Your task to perform on an android device: Go to Google maps Image 0: 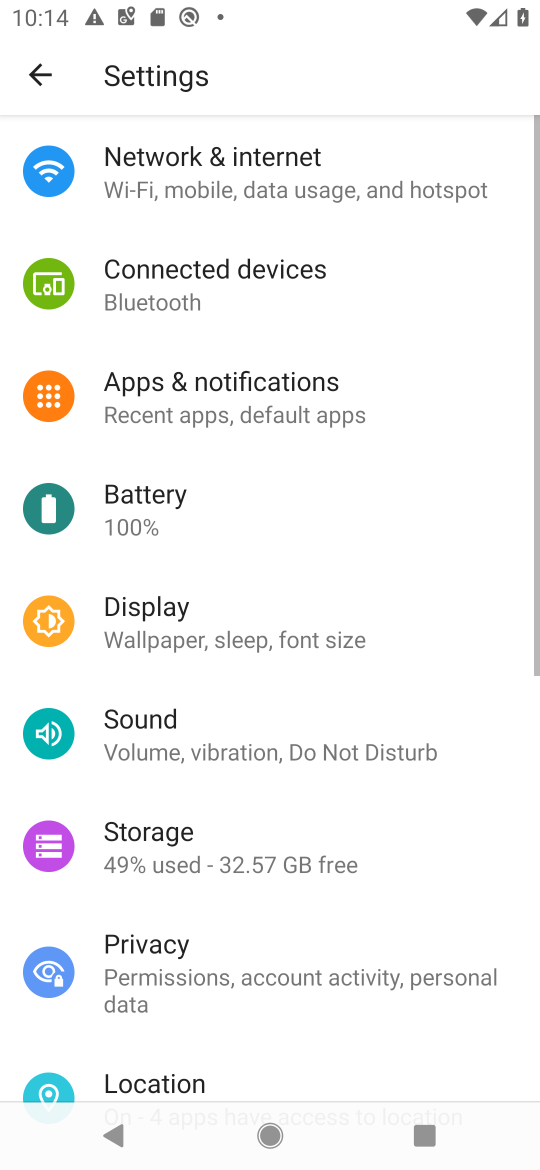
Step 0: press home button
Your task to perform on an android device: Go to Google maps Image 1: 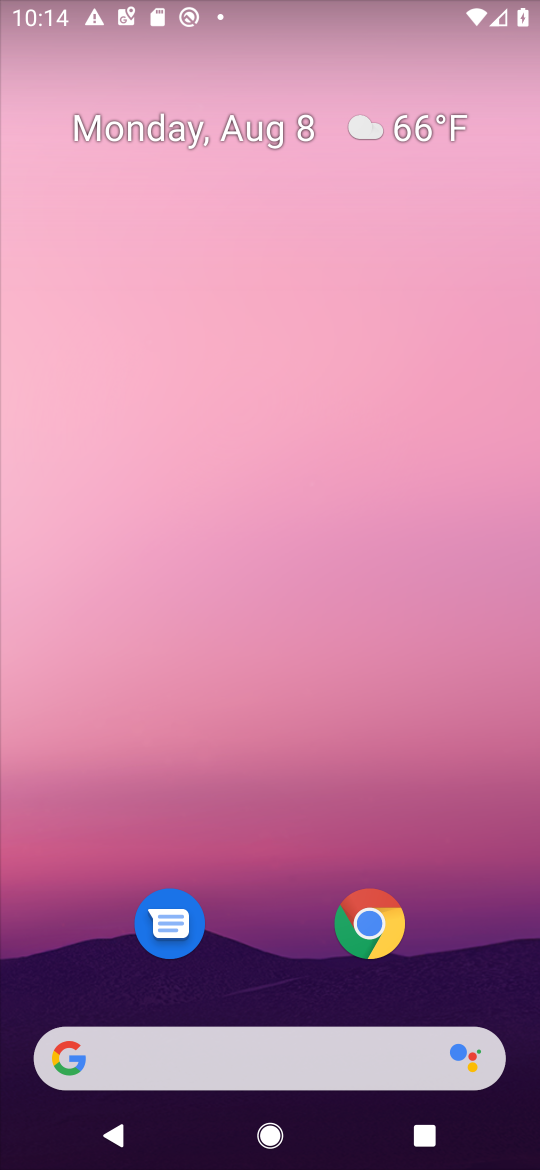
Step 1: drag from (59, 1128) to (0, 322)
Your task to perform on an android device: Go to Google maps Image 2: 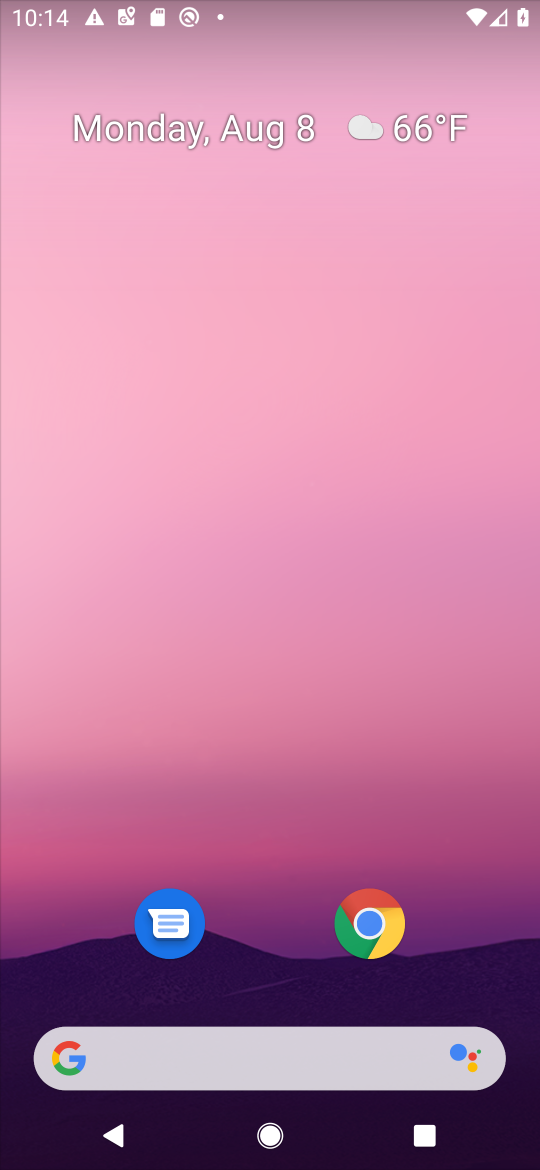
Step 2: drag from (69, 1123) to (385, 428)
Your task to perform on an android device: Go to Google maps Image 3: 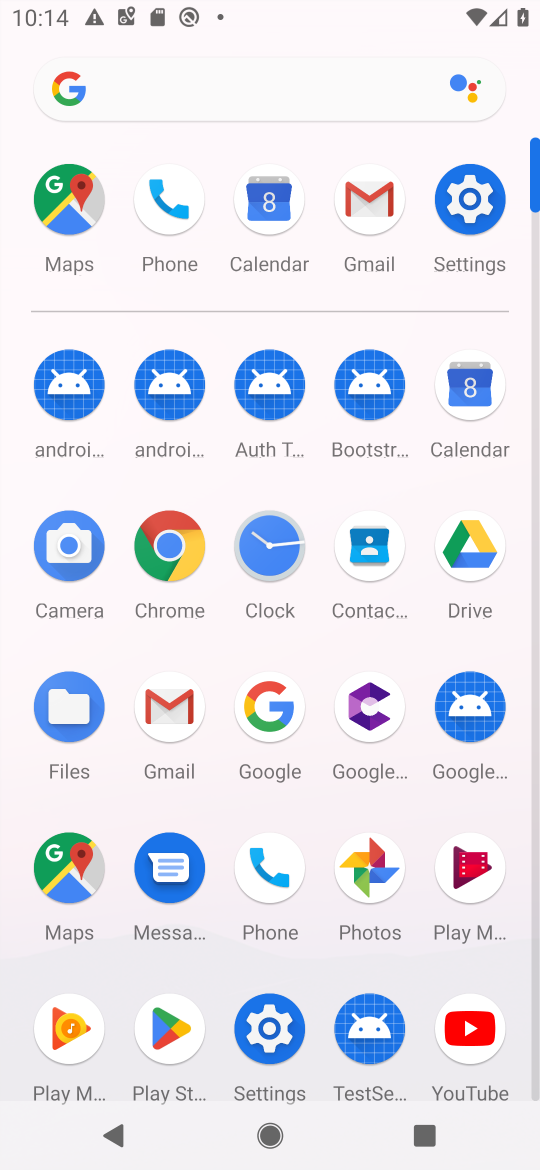
Step 3: click (52, 210)
Your task to perform on an android device: Go to Google maps Image 4: 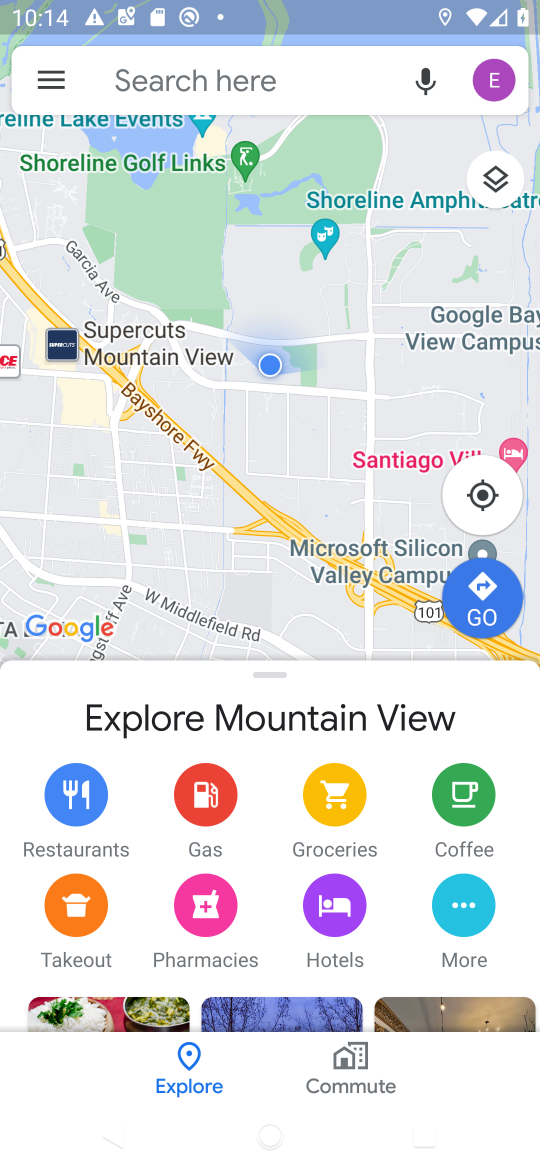
Step 4: task complete